Your task to perform on an android device: Open Maps and search for coffee Image 0: 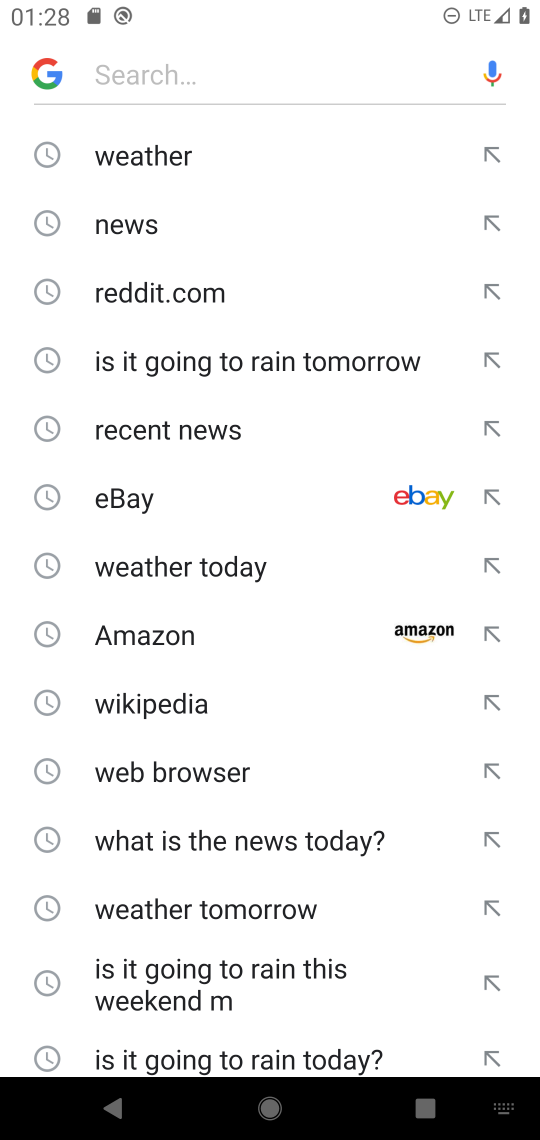
Step 0: press home button
Your task to perform on an android device: Open Maps and search for coffee Image 1: 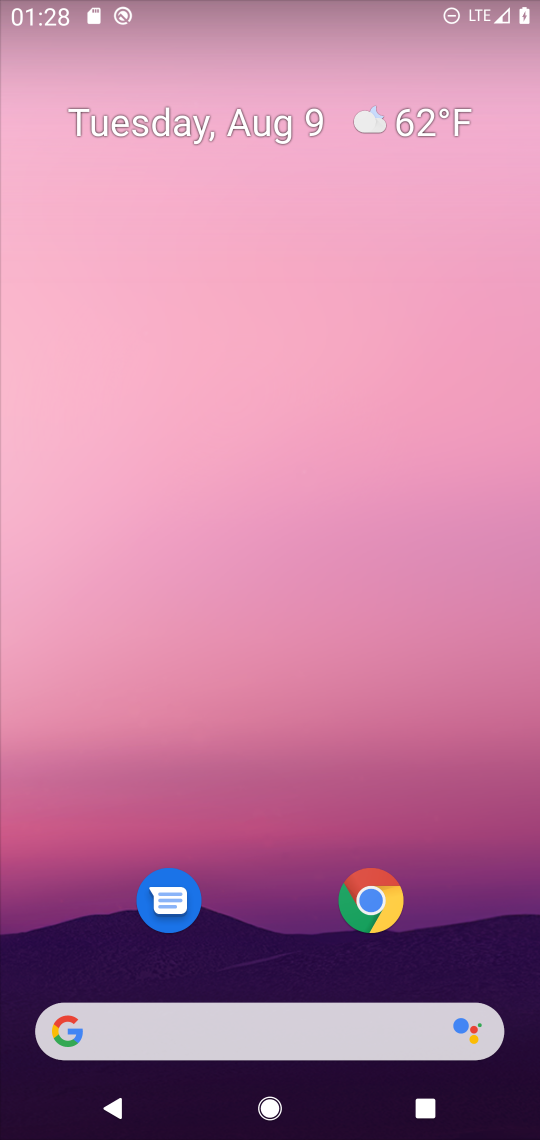
Step 1: drag from (285, 895) to (346, 144)
Your task to perform on an android device: Open Maps and search for coffee Image 2: 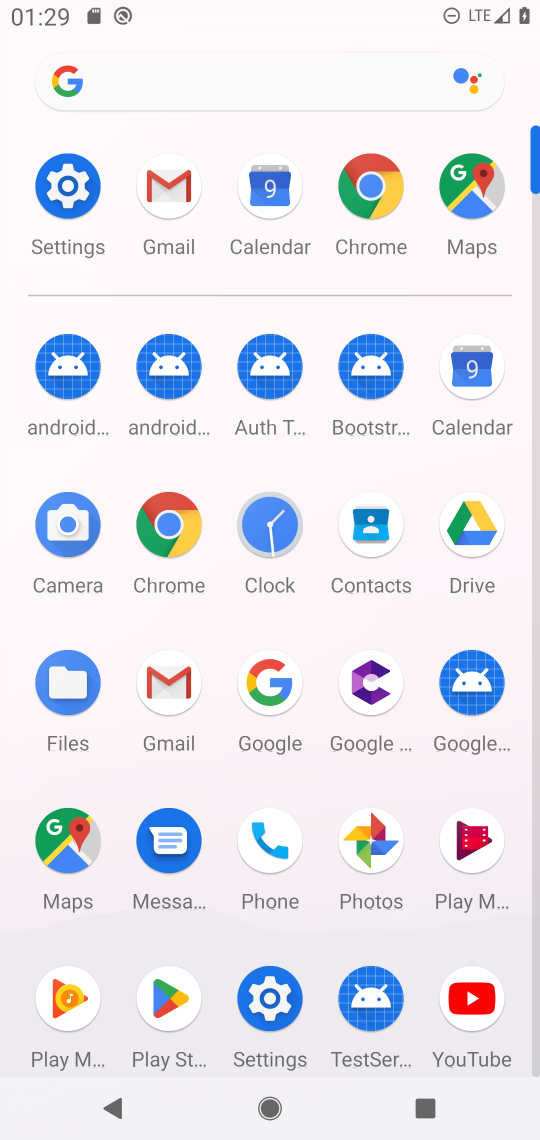
Step 2: click (475, 188)
Your task to perform on an android device: Open Maps and search for coffee Image 3: 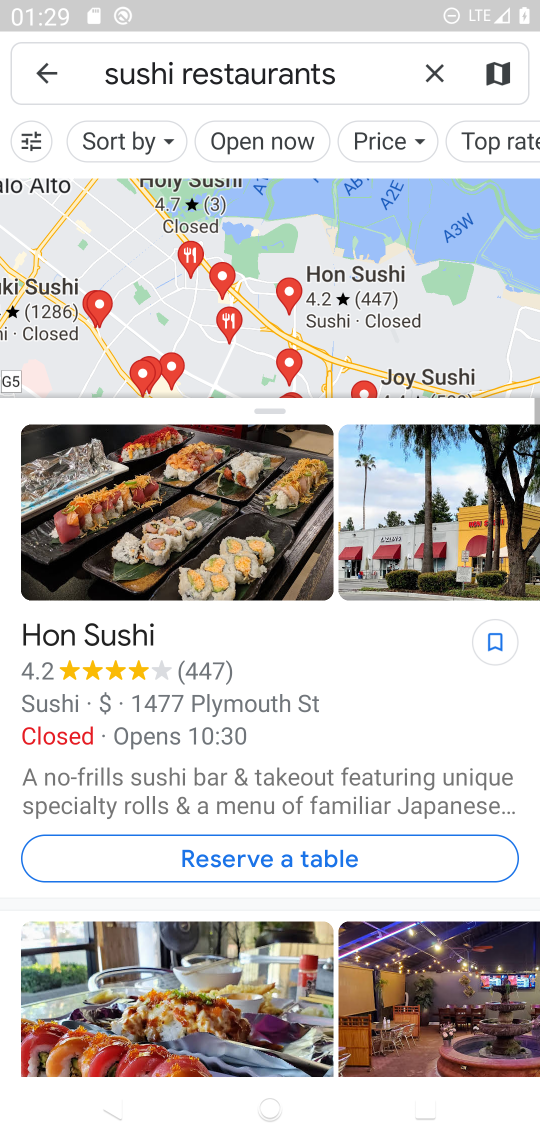
Step 3: click (436, 67)
Your task to perform on an android device: Open Maps and search for coffee Image 4: 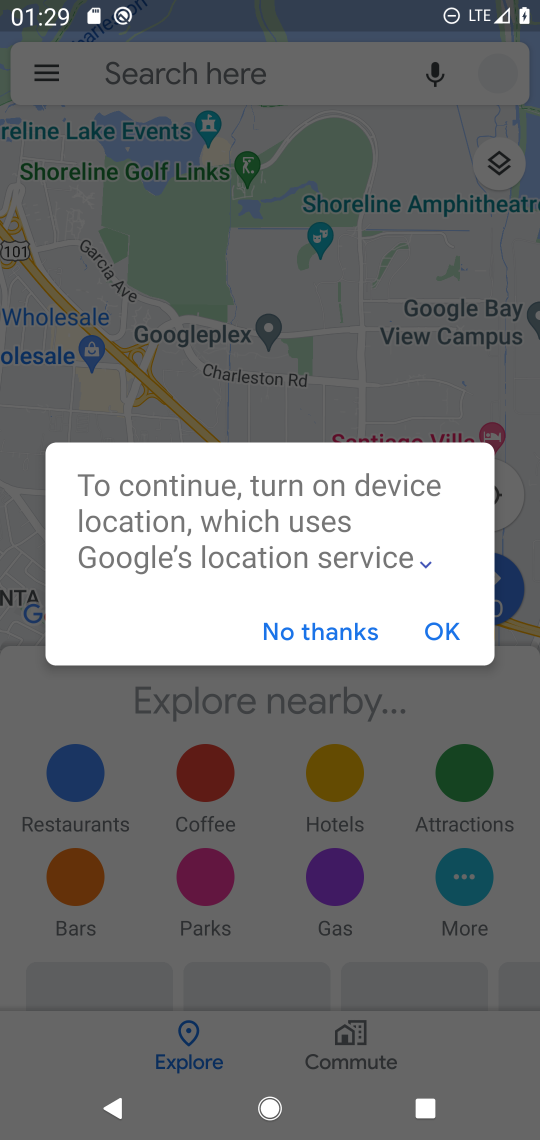
Step 4: click (306, 629)
Your task to perform on an android device: Open Maps and search for coffee Image 5: 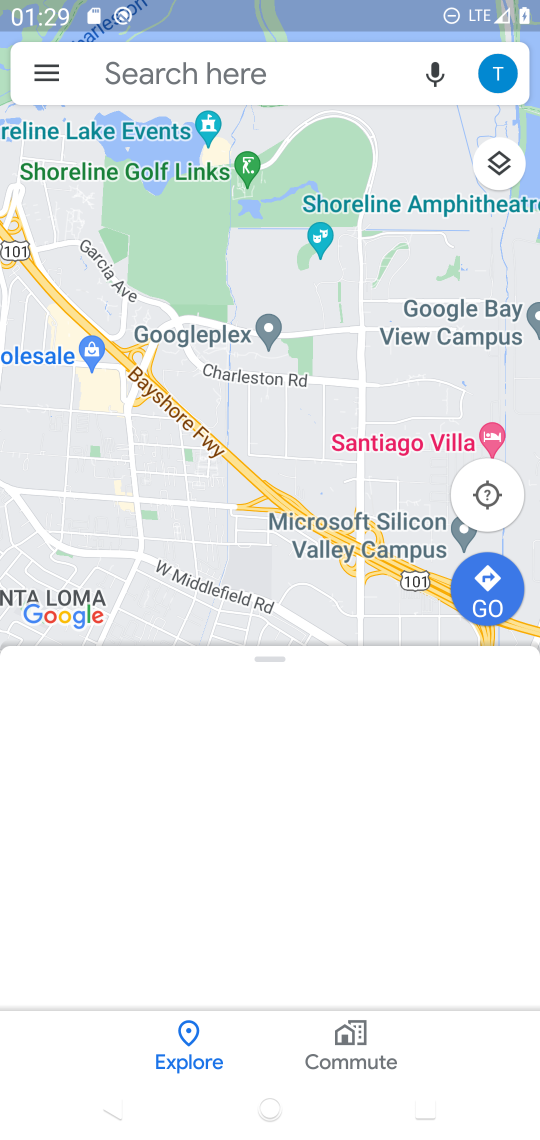
Step 5: click (283, 71)
Your task to perform on an android device: Open Maps and search for coffee Image 6: 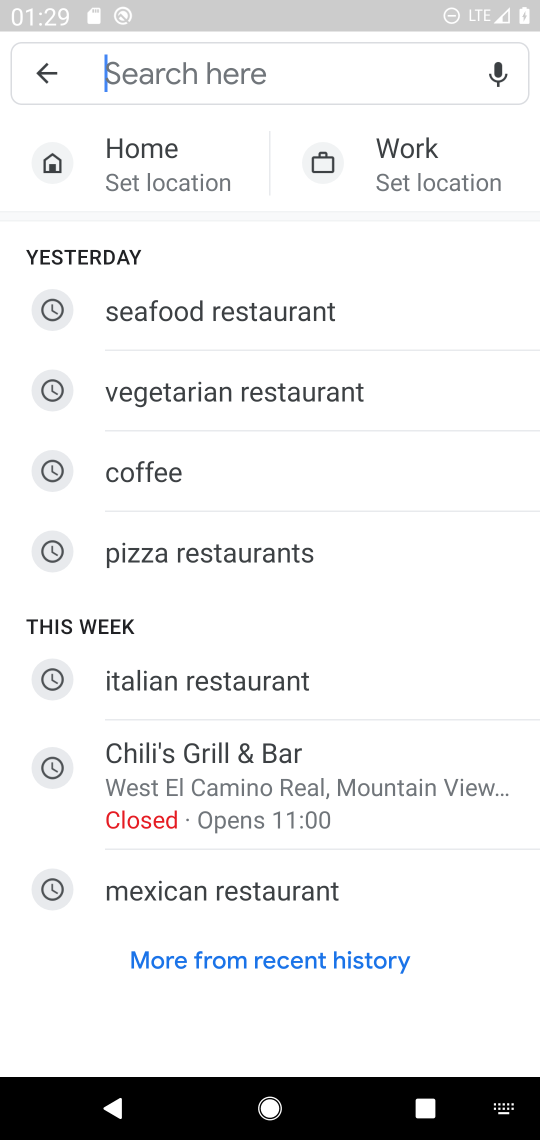
Step 6: type "coffee"
Your task to perform on an android device: Open Maps and search for coffee Image 7: 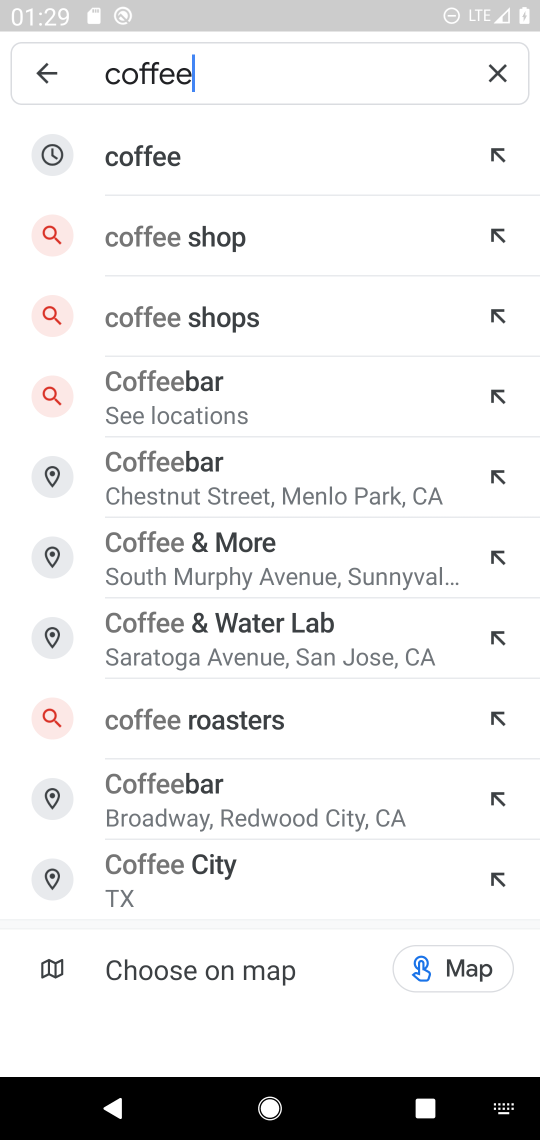
Step 7: click (190, 172)
Your task to perform on an android device: Open Maps and search for coffee Image 8: 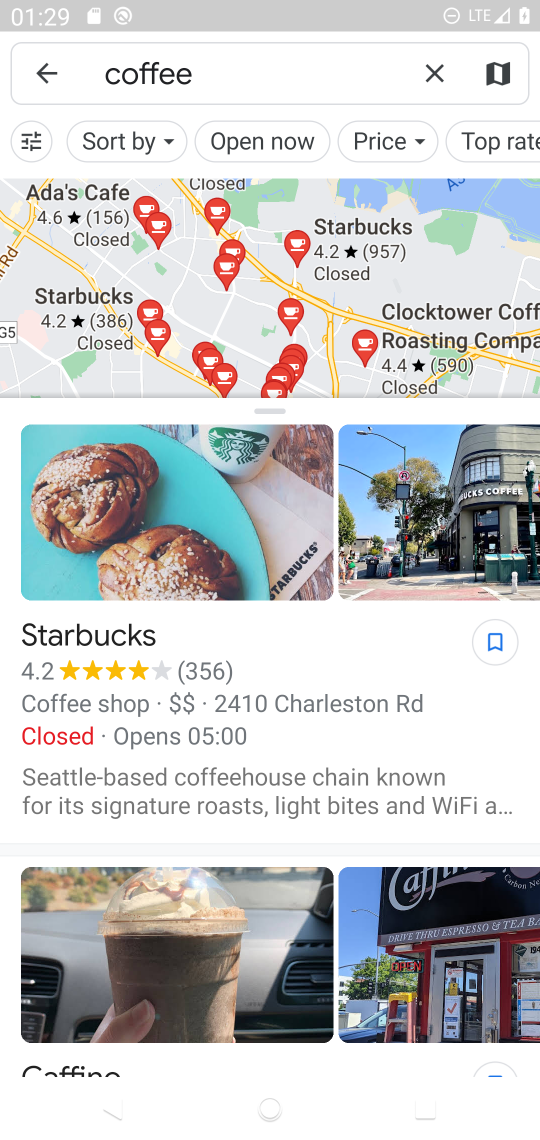
Step 8: task complete